Your task to perform on an android device: check android version Image 0: 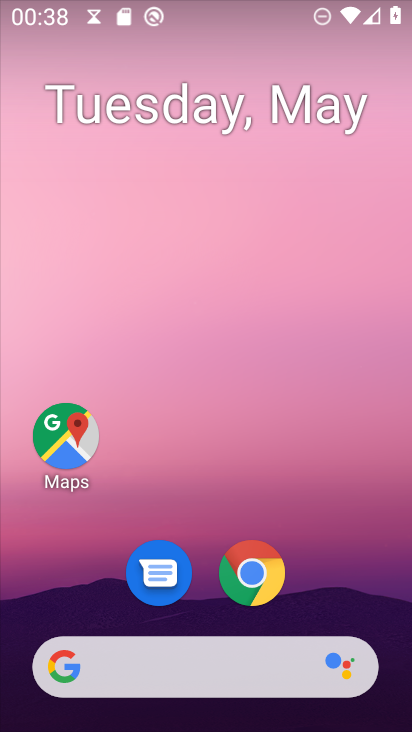
Step 0: drag from (345, 576) to (221, 113)
Your task to perform on an android device: check android version Image 1: 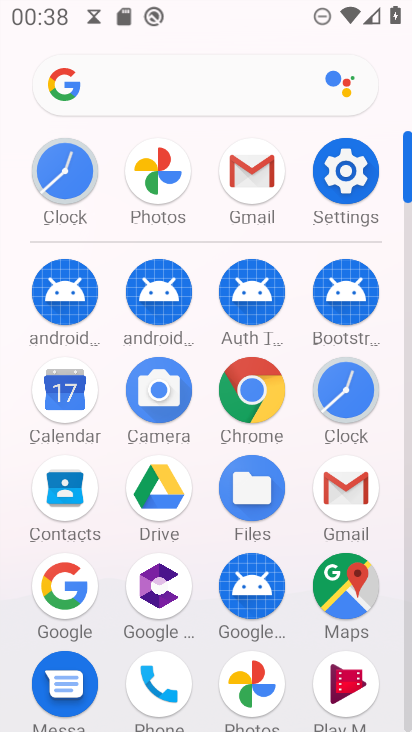
Step 1: click (340, 171)
Your task to perform on an android device: check android version Image 2: 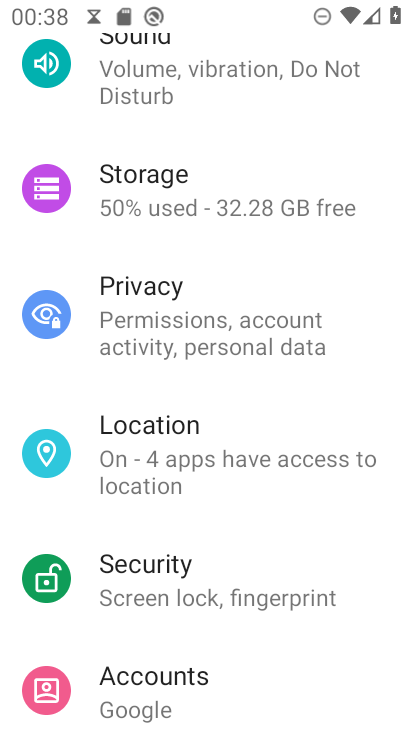
Step 2: drag from (258, 576) to (204, 84)
Your task to perform on an android device: check android version Image 3: 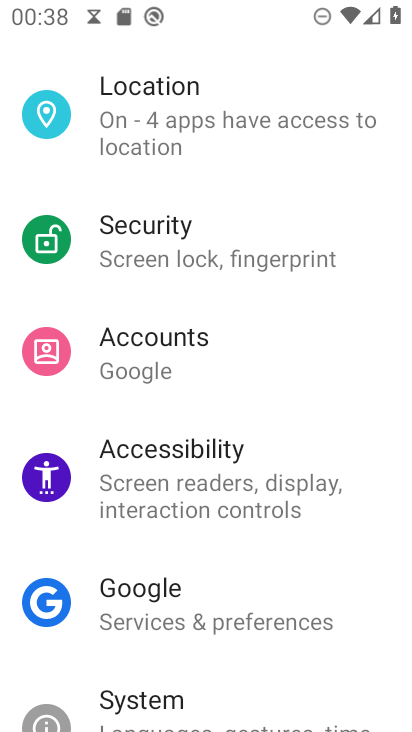
Step 3: drag from (220, 612) to (232, 141)
Your task to perform on an android device: check android version Image 4: 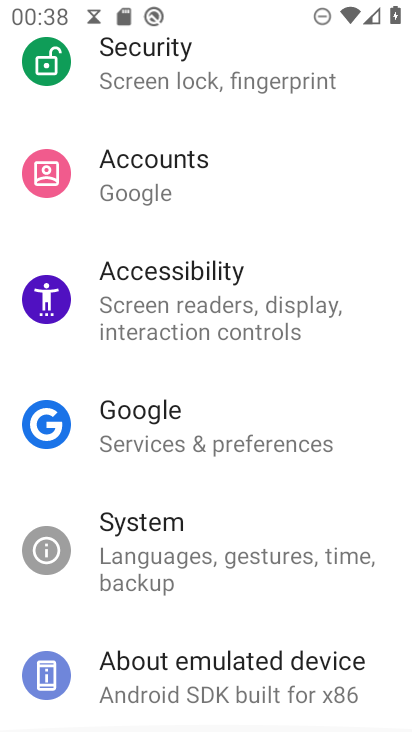
Step 4: drag from (245, 646) to (231, 214)
Your task to perform on an android device: check android version Image 5: 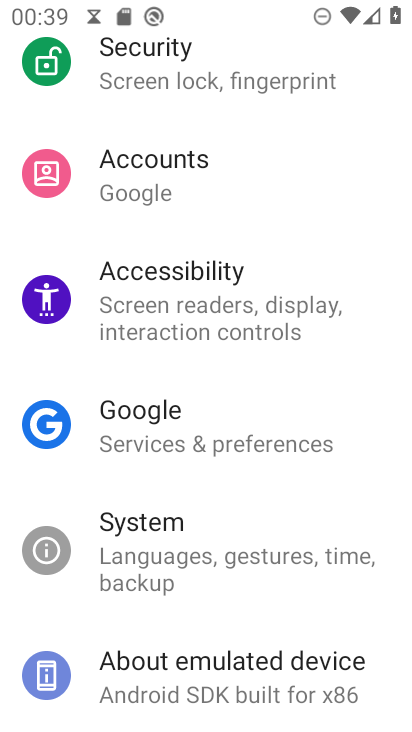
Step 5: drag from (235, 626) to (216, 243)
Your task to perform on an android device: check android version Image 6: 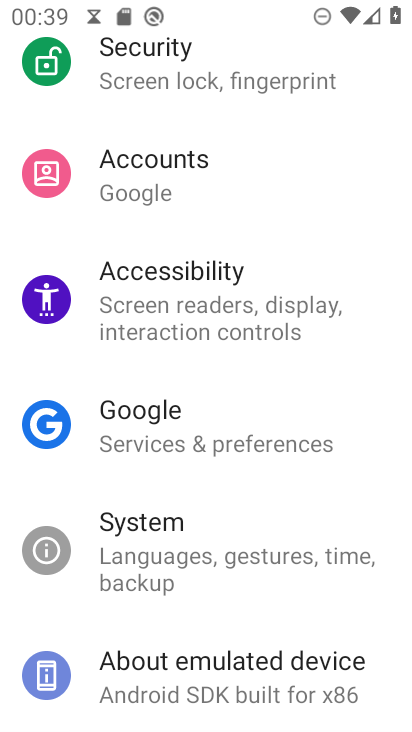
Step 6: click (228, 673)
Your task to perform on an android device: check android version Image 7: 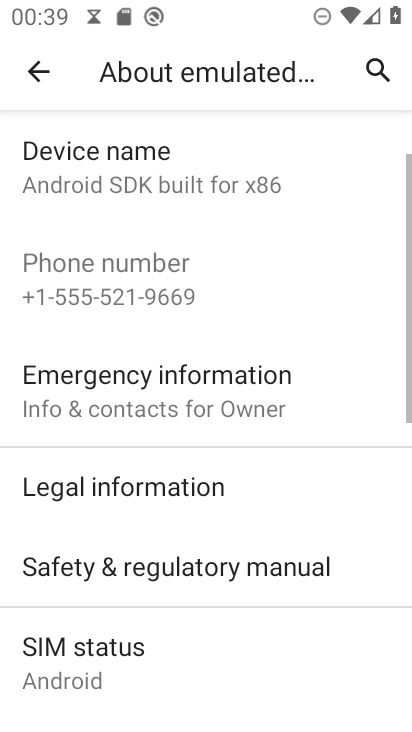
Step 7: drag from (236, 615) to (173, 115)
Your task to perform on an android device: check android version Image 8: 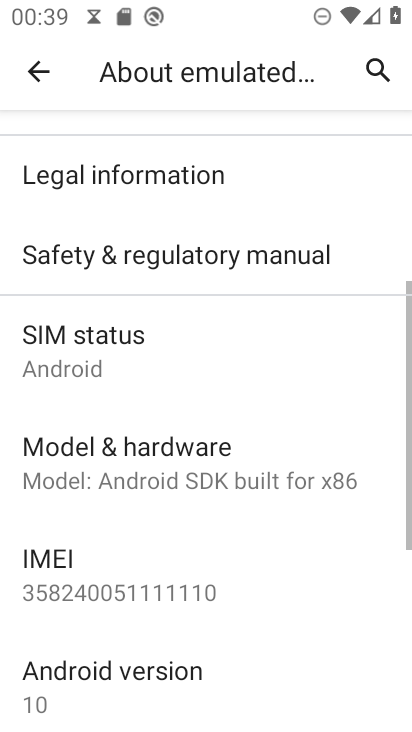
Step 8: click (169, 667)
Your task to perform on an android device: check android version Image 9: 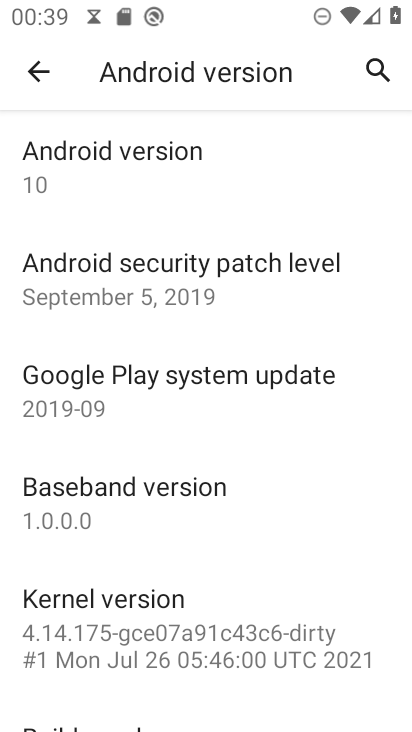
Step 9: task complete